Your task to perform on an android device: turn off smart reply in the gmail app Image 0: 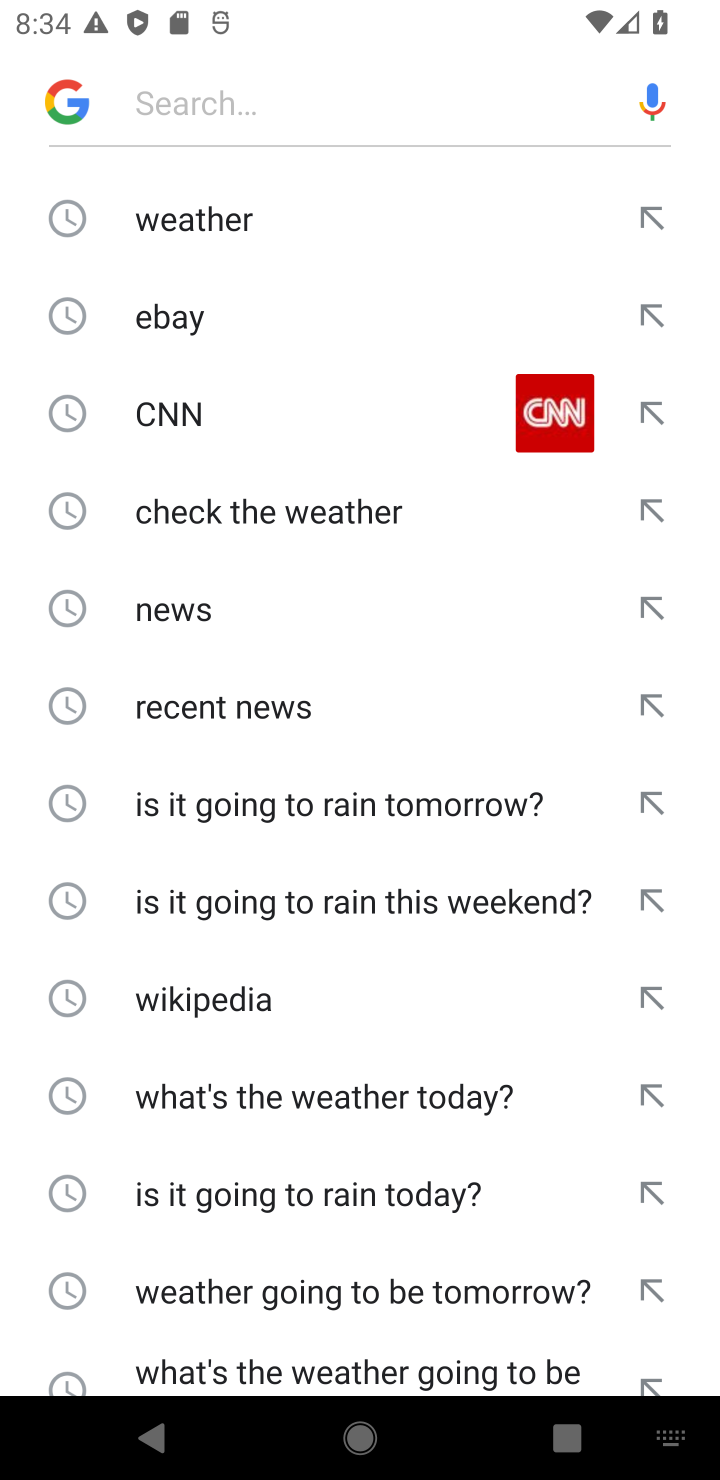
Step 0: press home button
Your task to perform on an android device: turn off smart reply in the gmail app Image 1: 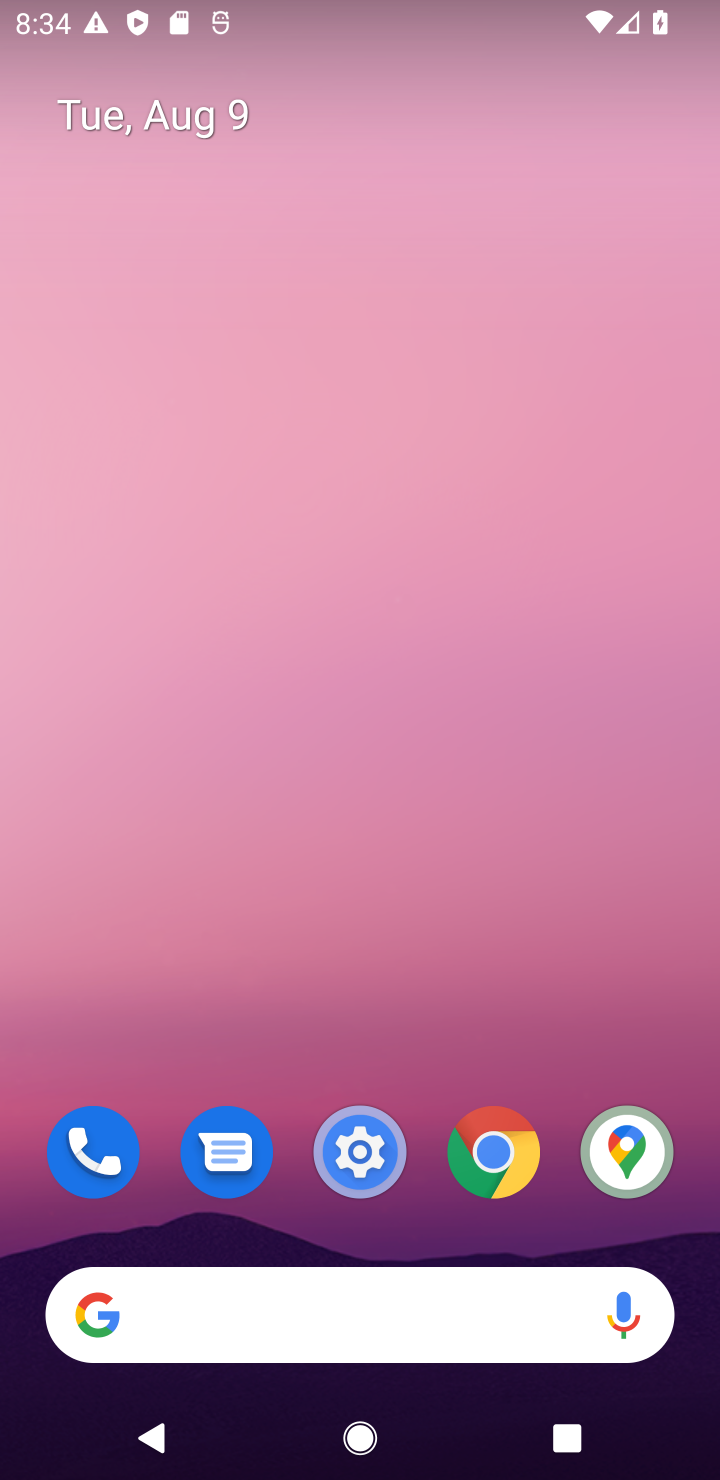
Step 1: drag from (306, 1097) to (144, 394)
Your task to perform on an android device: turn off smart reply in the gmail app Image 2: 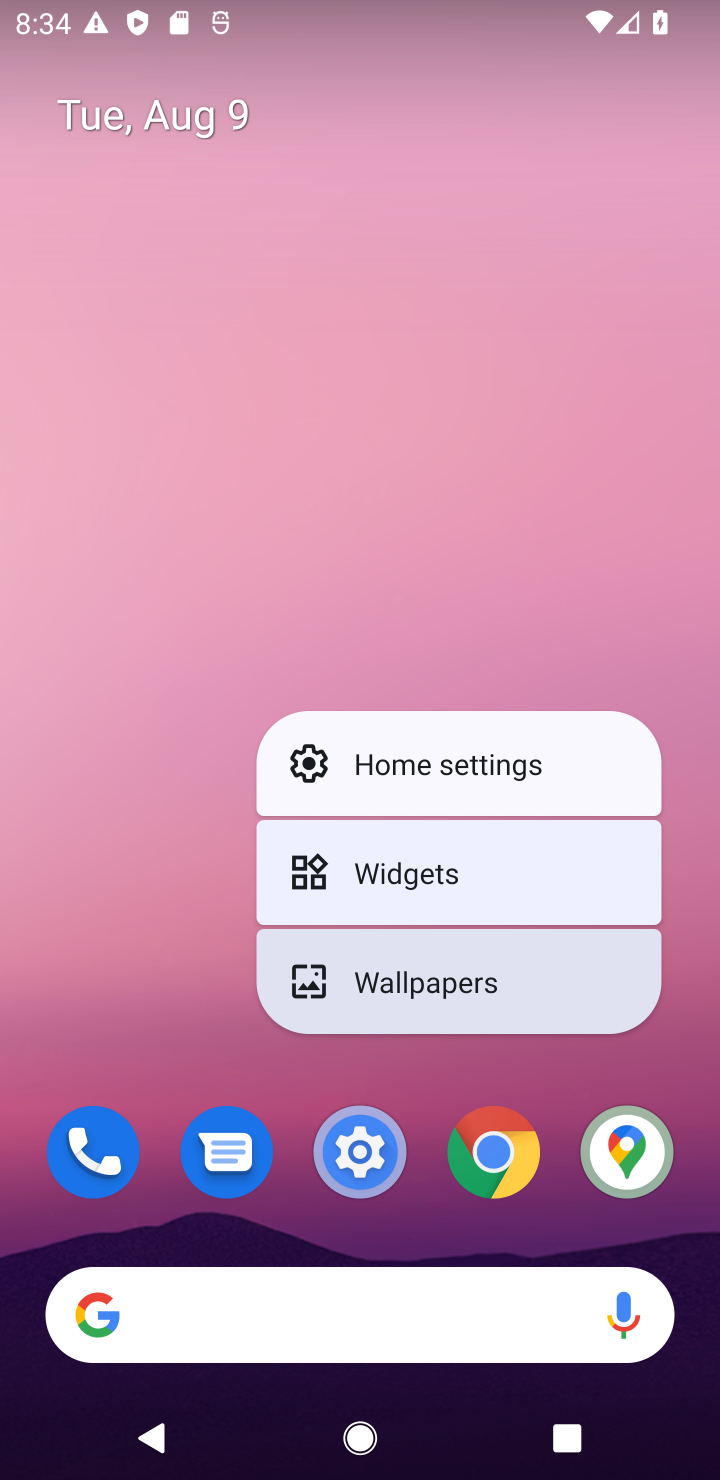
Step 2: click (121, 901)
Your task to perform on an android device: turn off smart reply in the gmail app Image 3: 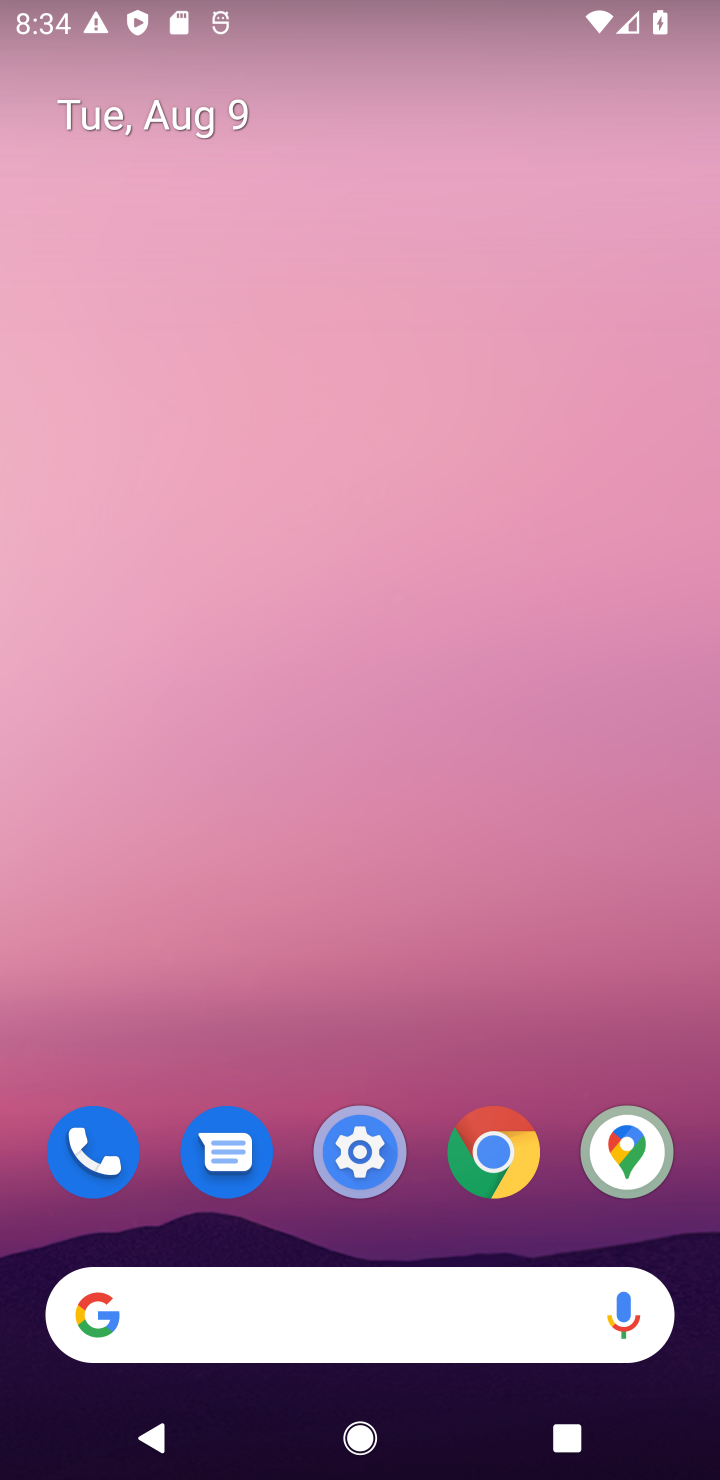
Step 3: drag from (121, 901) to (213, 247)
Your task to perform on an android device: turn off smart reply in the gmail app Image 4: 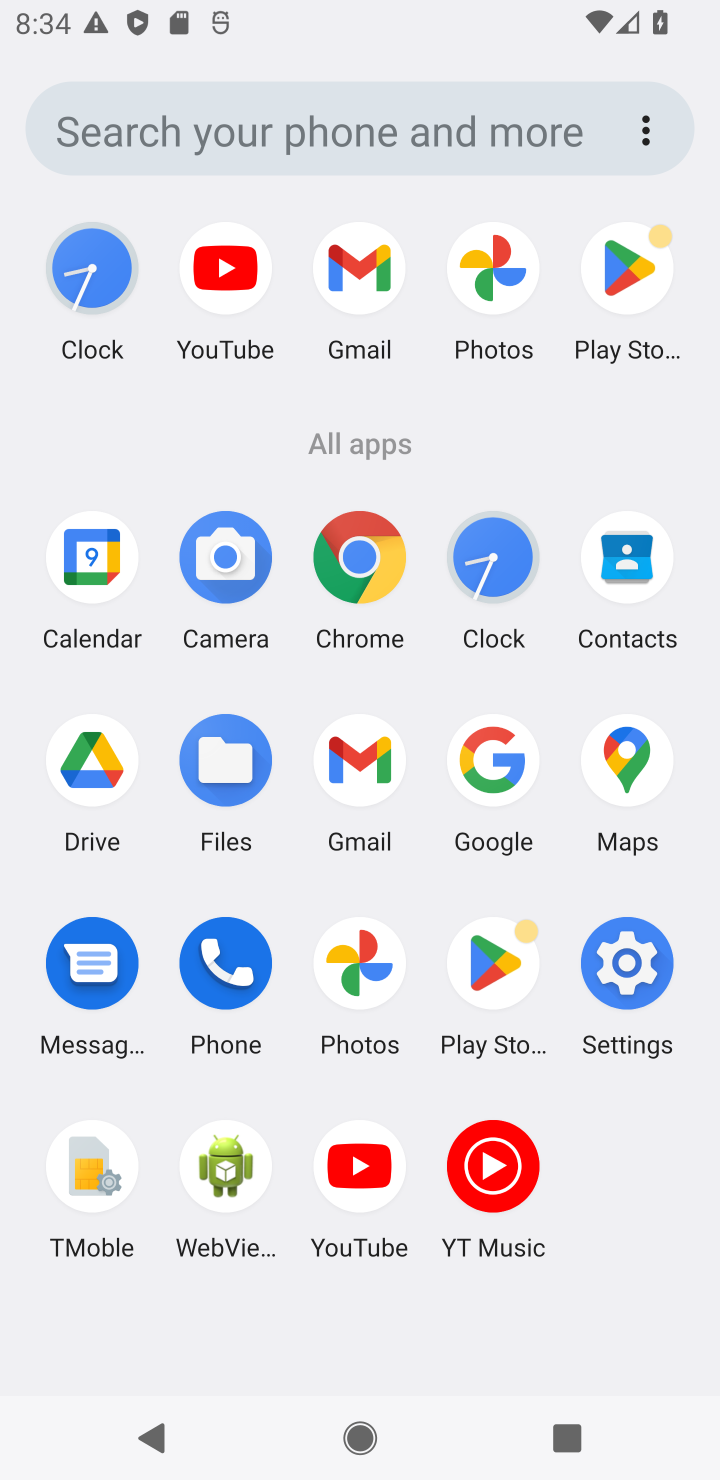
Step 4: click (344, 755)
Your task to perform on an android device: turn off smart reply in the gmail app Image 5: 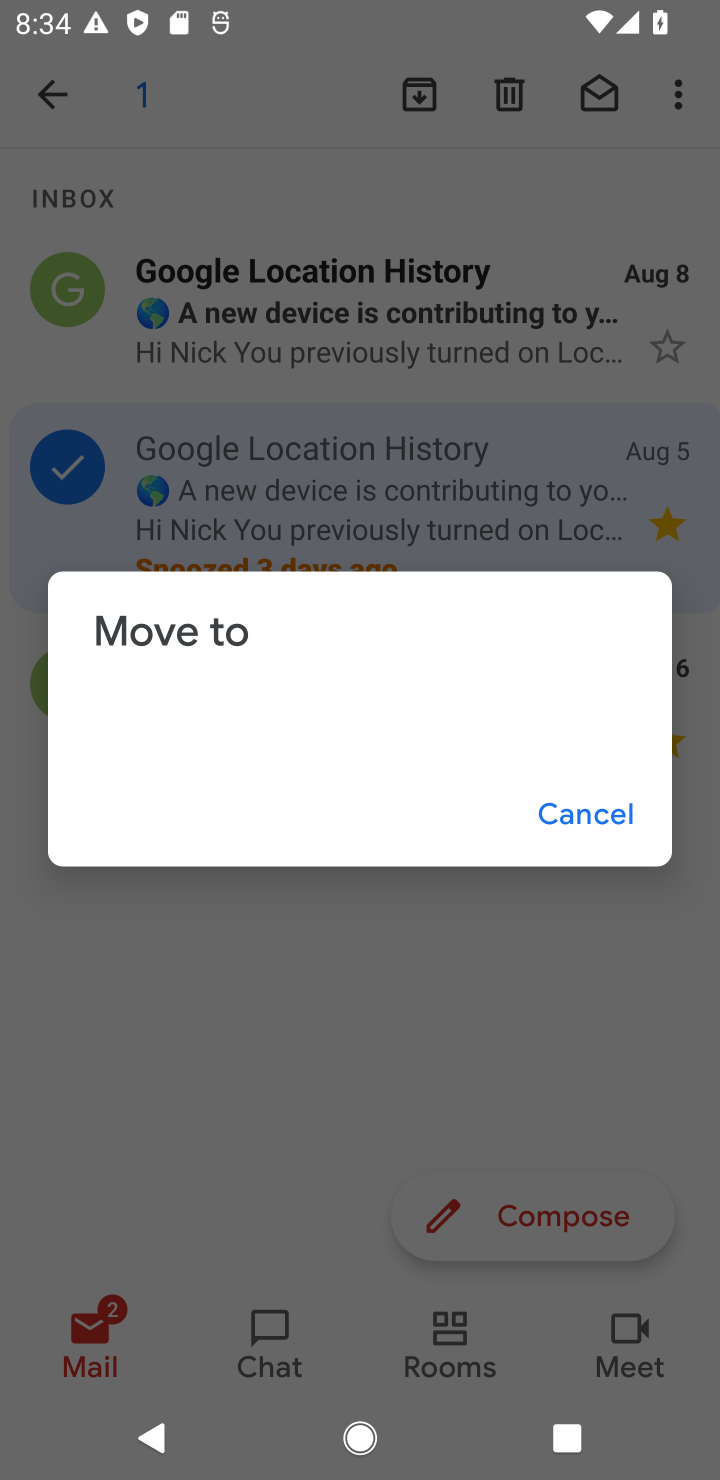
Step 5: click (563, 829)
Your task to perform on an android device: turn off smart reply in the gmail app Image 6: 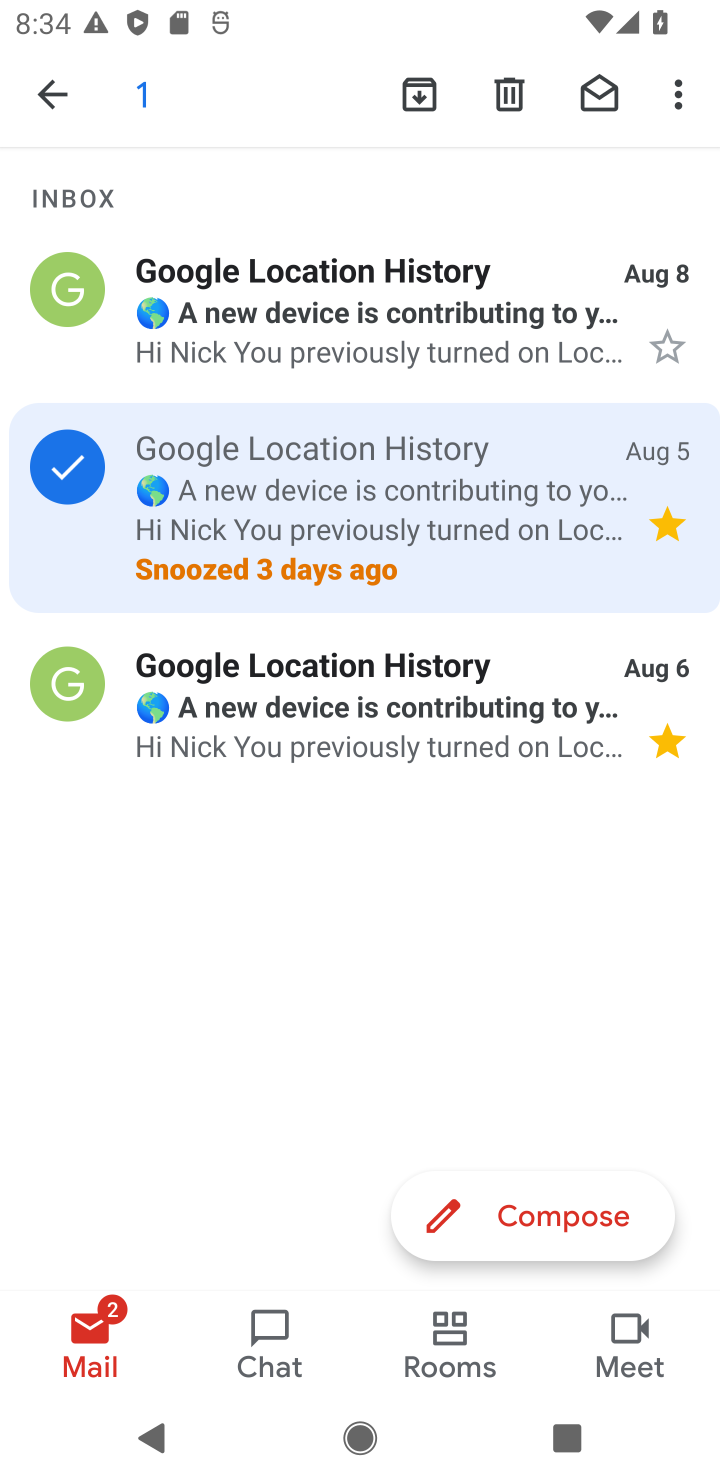
Step 6: click (36, 72)
Your task to perform on an android device: turn off smart reply in the gmail app Image 7: 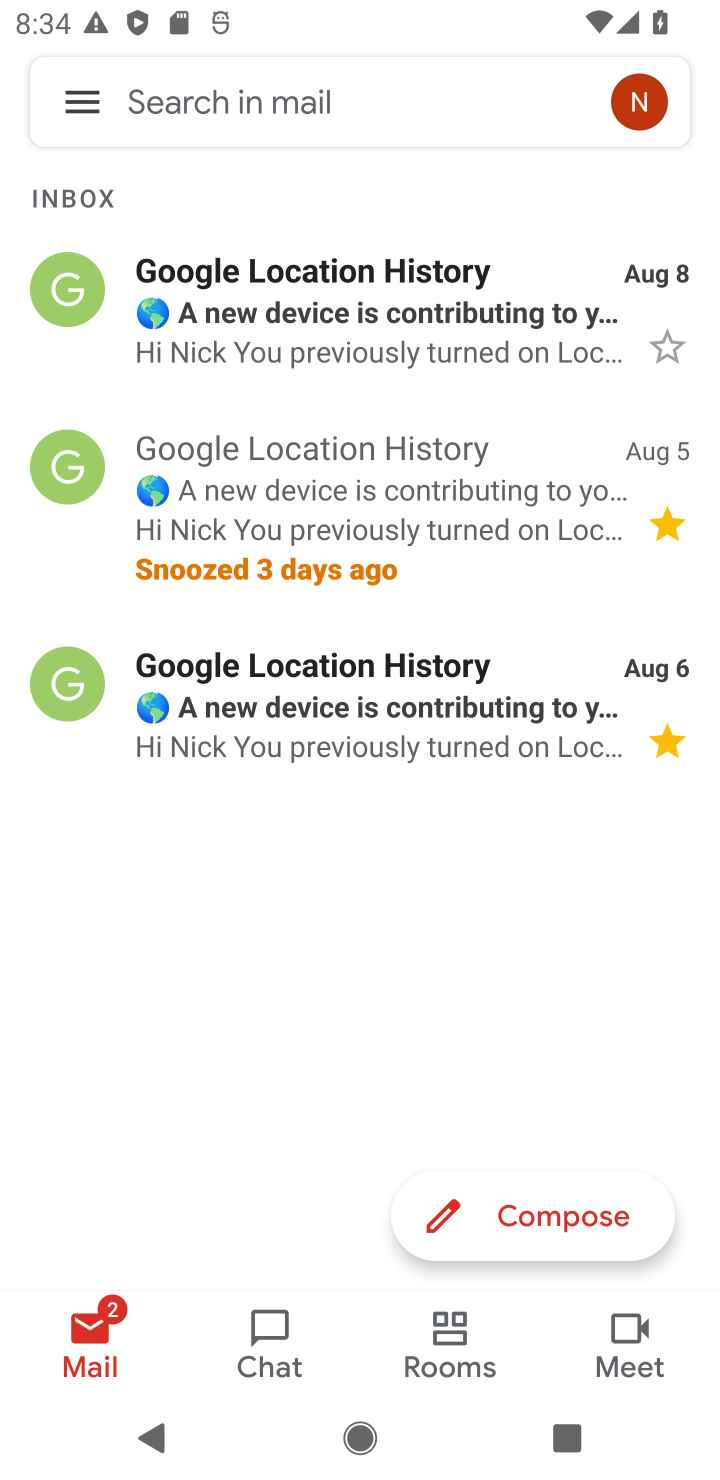
Step 7: click (66, 114)
Your task to perform on an android device: turn off smart reply in the gmail app Image 8: 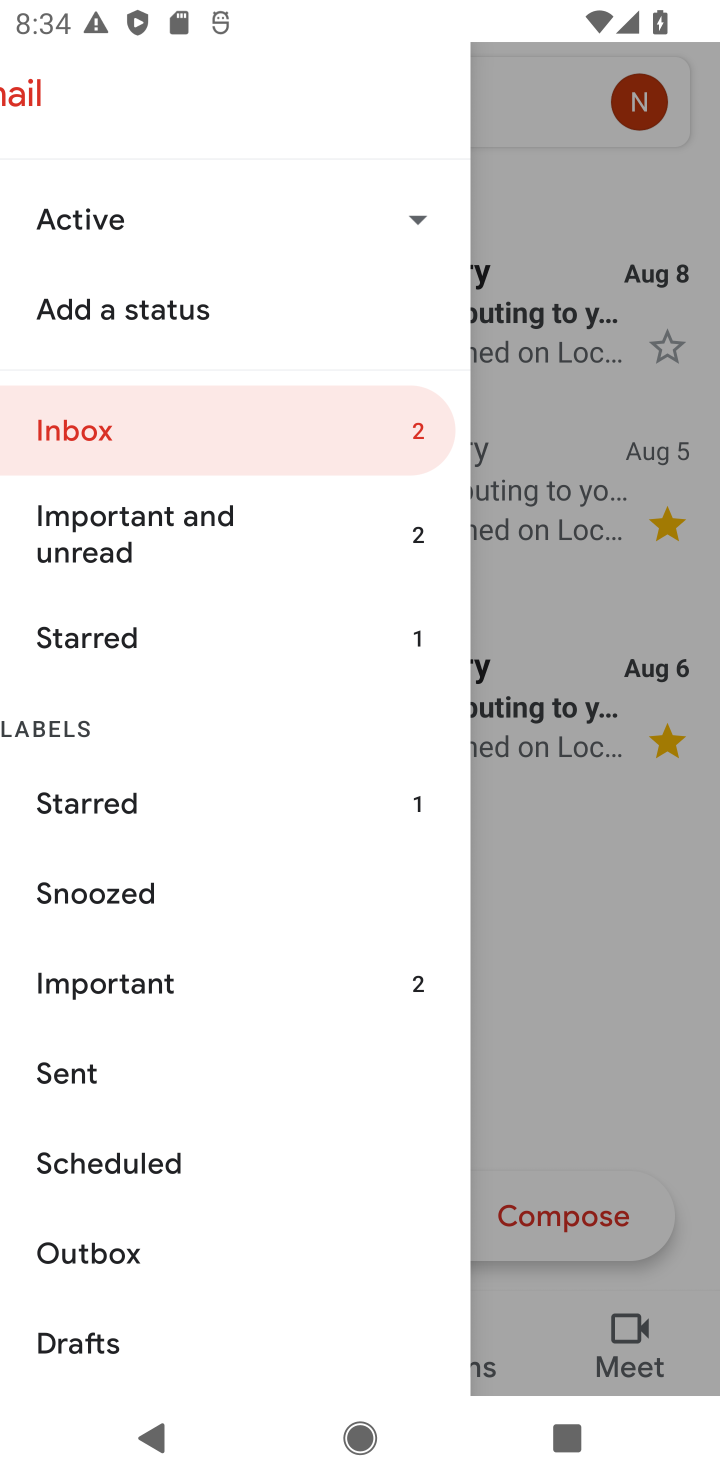
Step 8: click (66, 114)
Your task to perform on an android device: turn off smart reply in the gmail app Image 9: 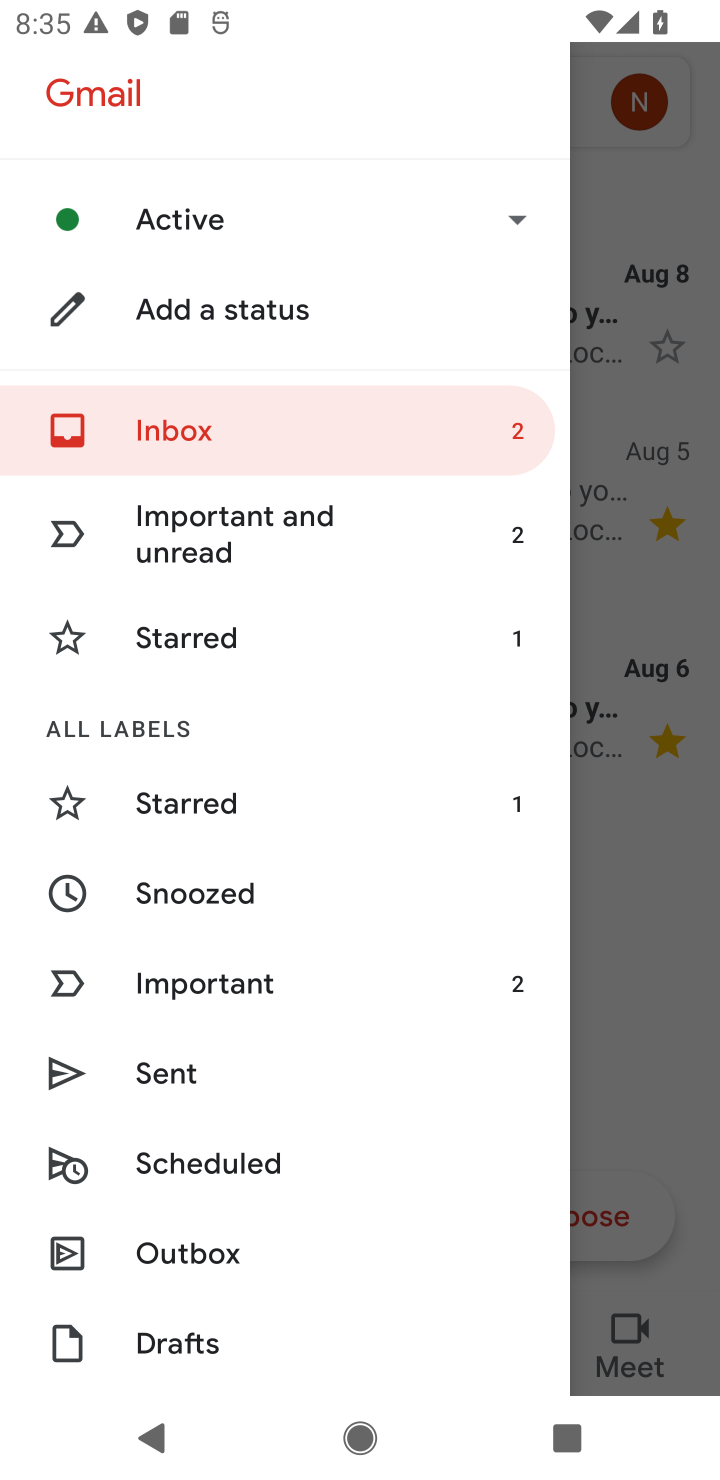
Step 9: drag from (281, 1300) to (270, 893)
Your task to perform on an android device: turn off smart reply in the gmail app Image 10: 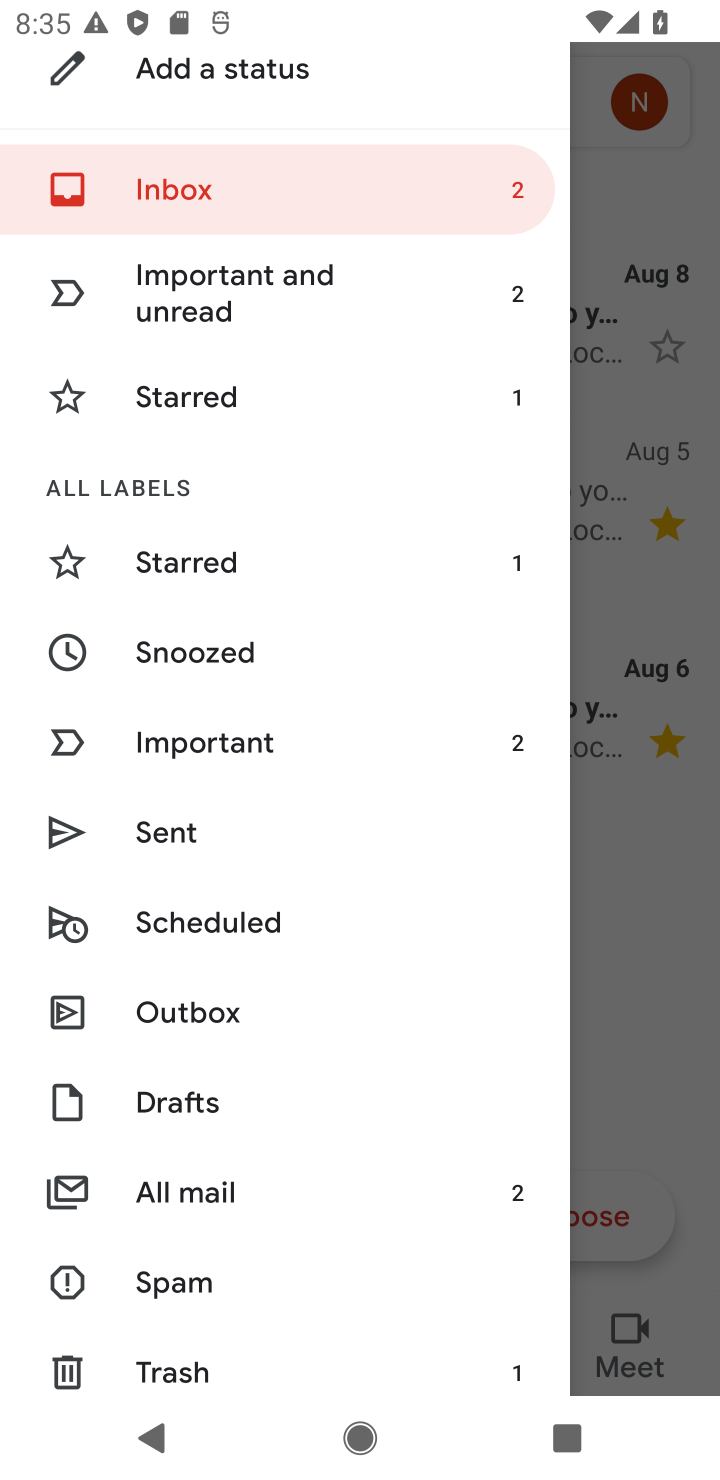
Step 10: drag from (404, 1359) to (426, 788)
Your task to perform on an android device: turn off smart reply in the gmail app Image 11: 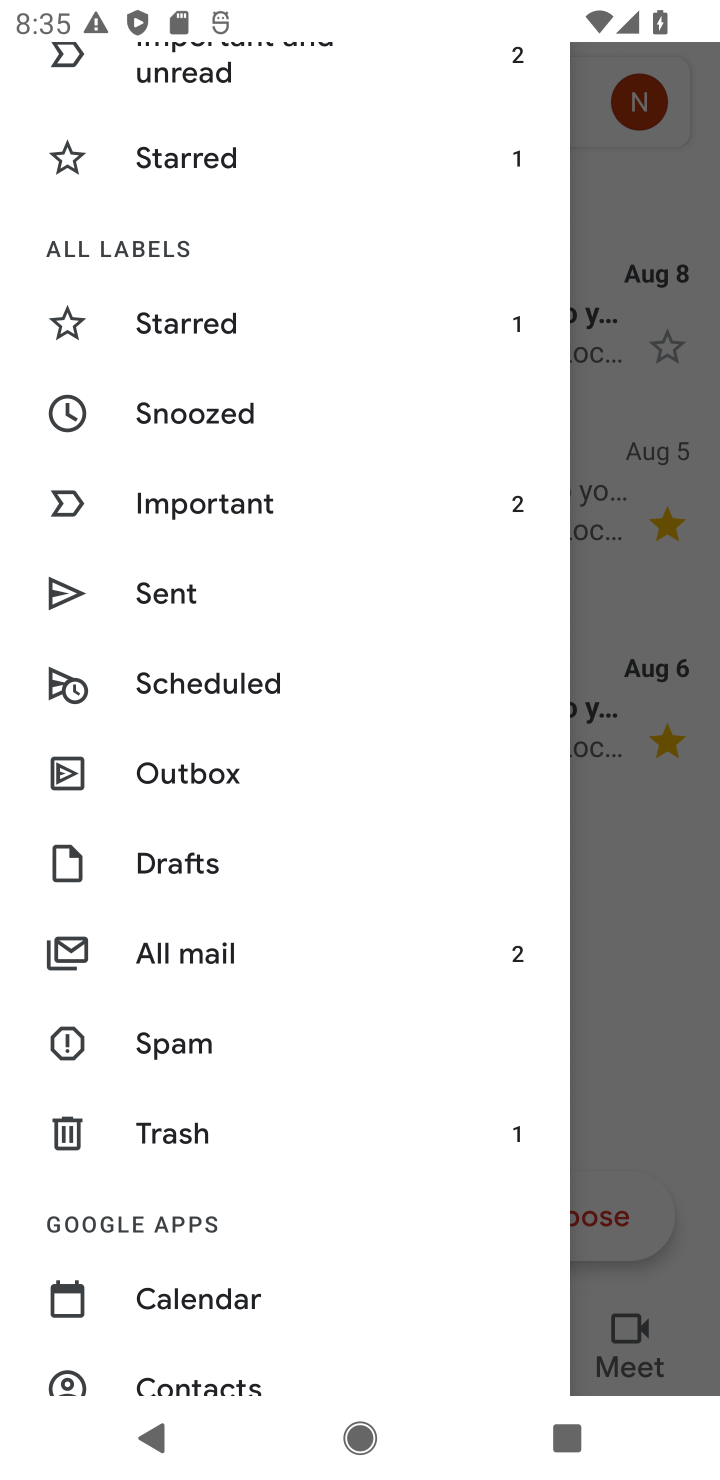
Step 11: drag from (287, 1367) to (392, 559)
Your task to perform on an android device: turn off smart reply in the gmail app Image 12: 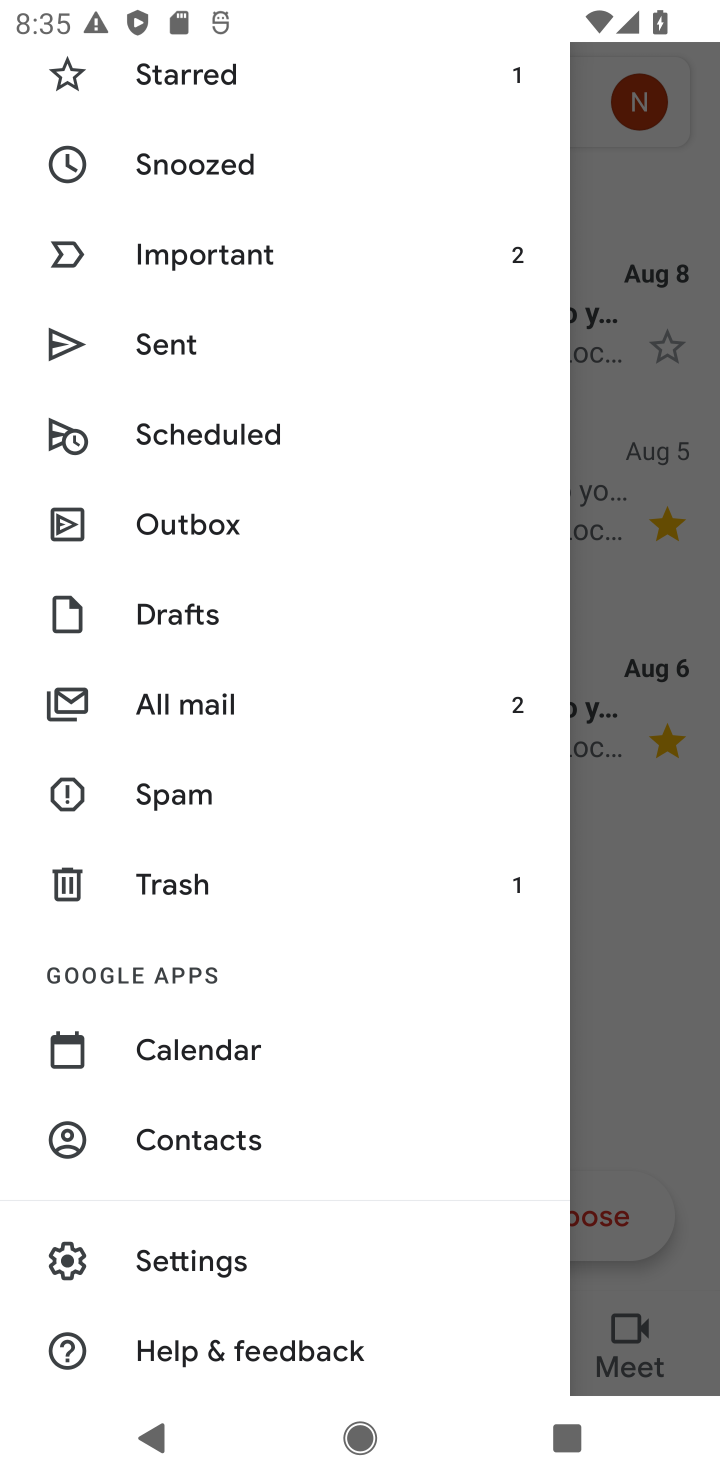
Step 12: drag from (421, 1133) to (416, 926)
Your task to perform on an android device: turn off smart reply in the gmail app Image 13: 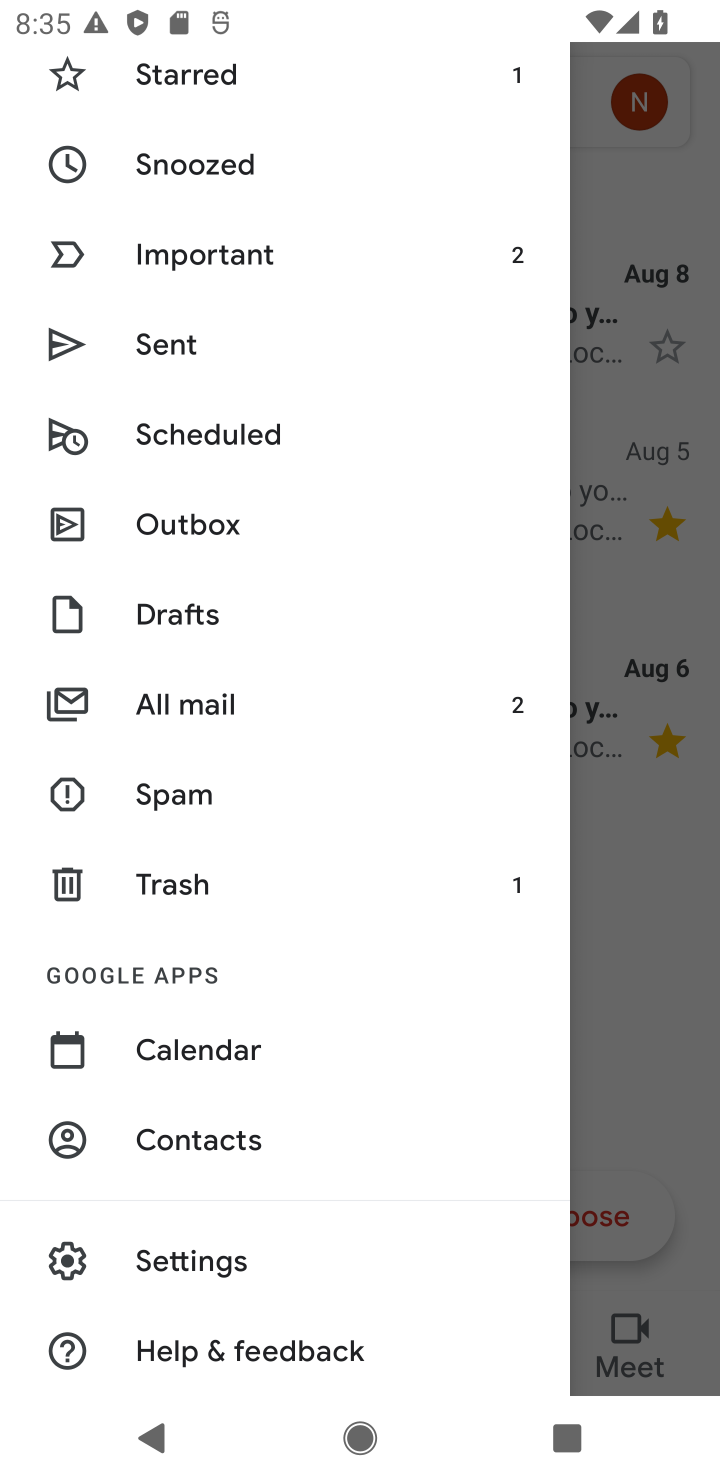
Step 13: drag from (370, 1299) to (332, 939)
Your task to perform on an android device: turn off smart reply in the gmail app Image 14: 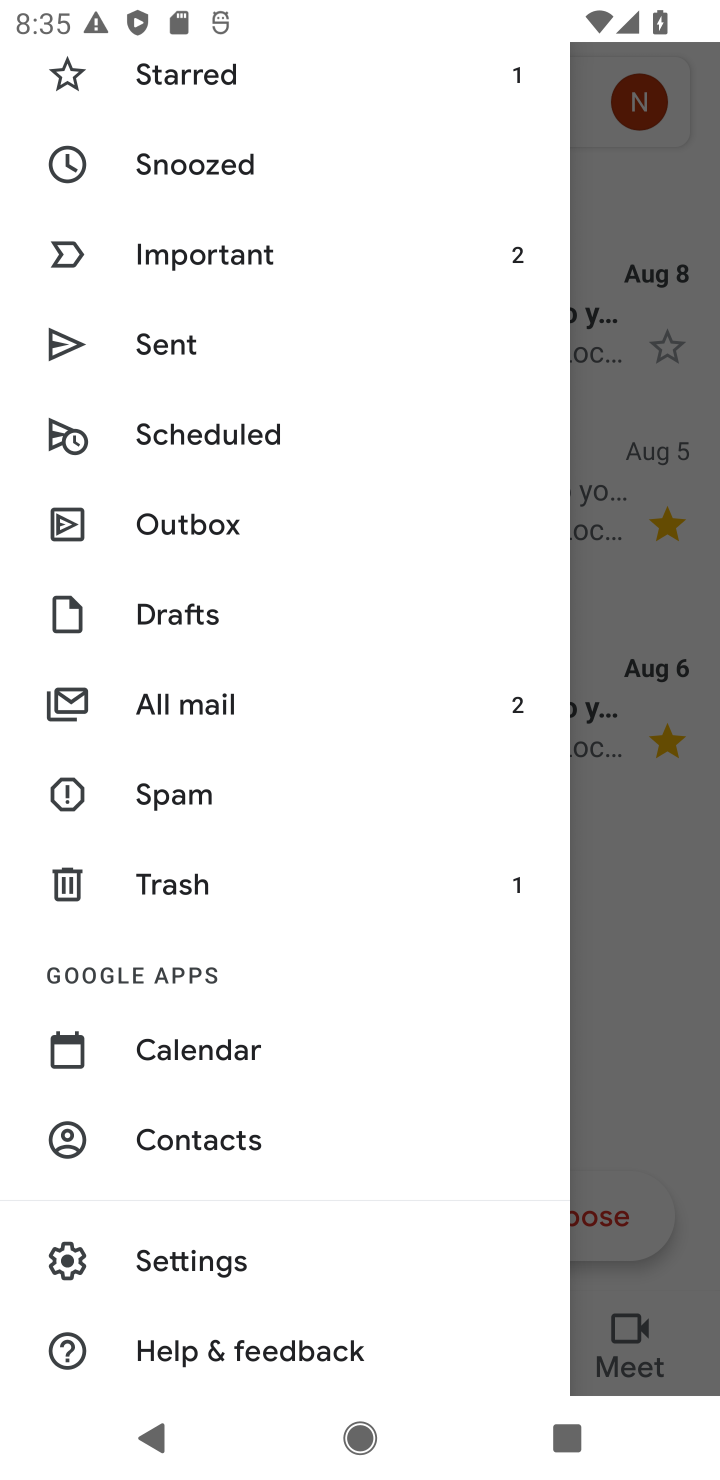
Step 14: click (158, 1293)
Your task to perform on an android device: turn off smart reply in the gmail app Image 15: 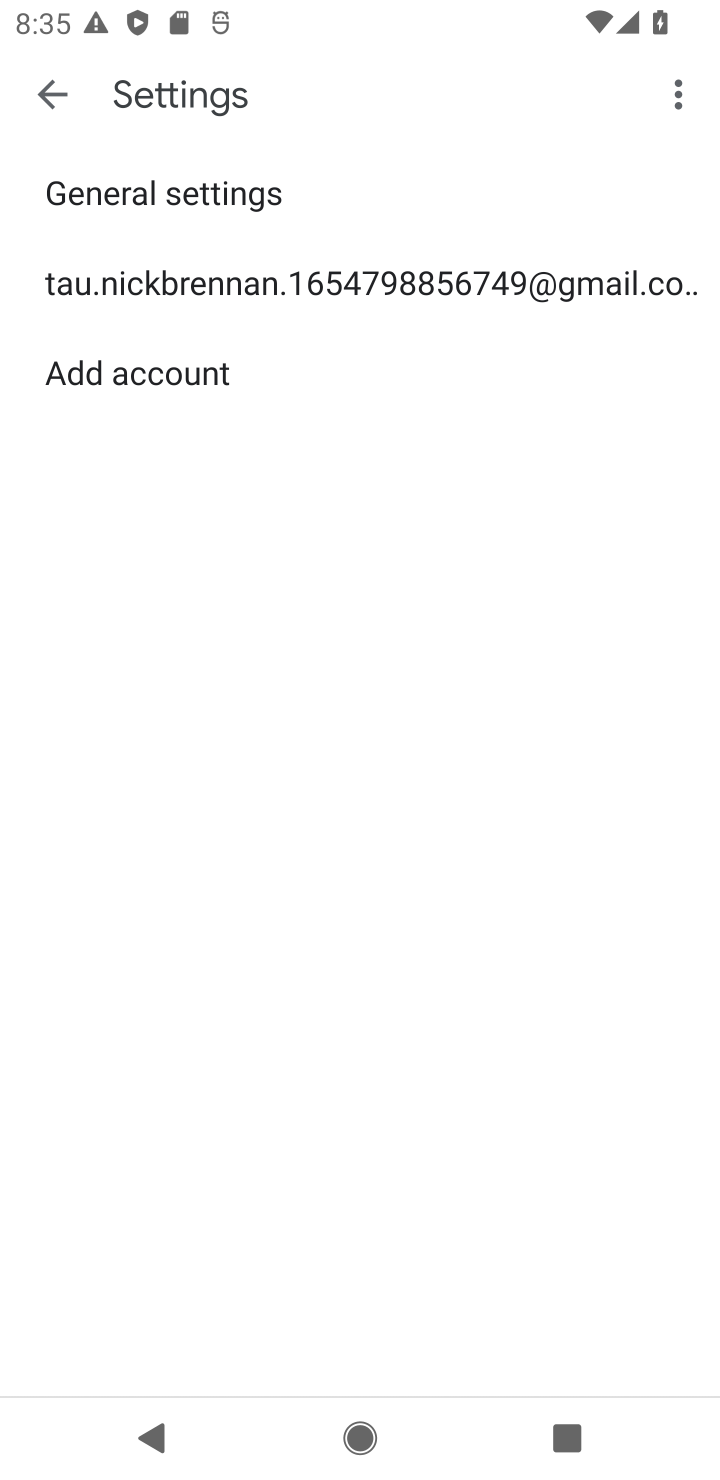
Step 15: click (211, 312)
Your task to perform on an android device: turn off smart reply in the gmail app Image 16: 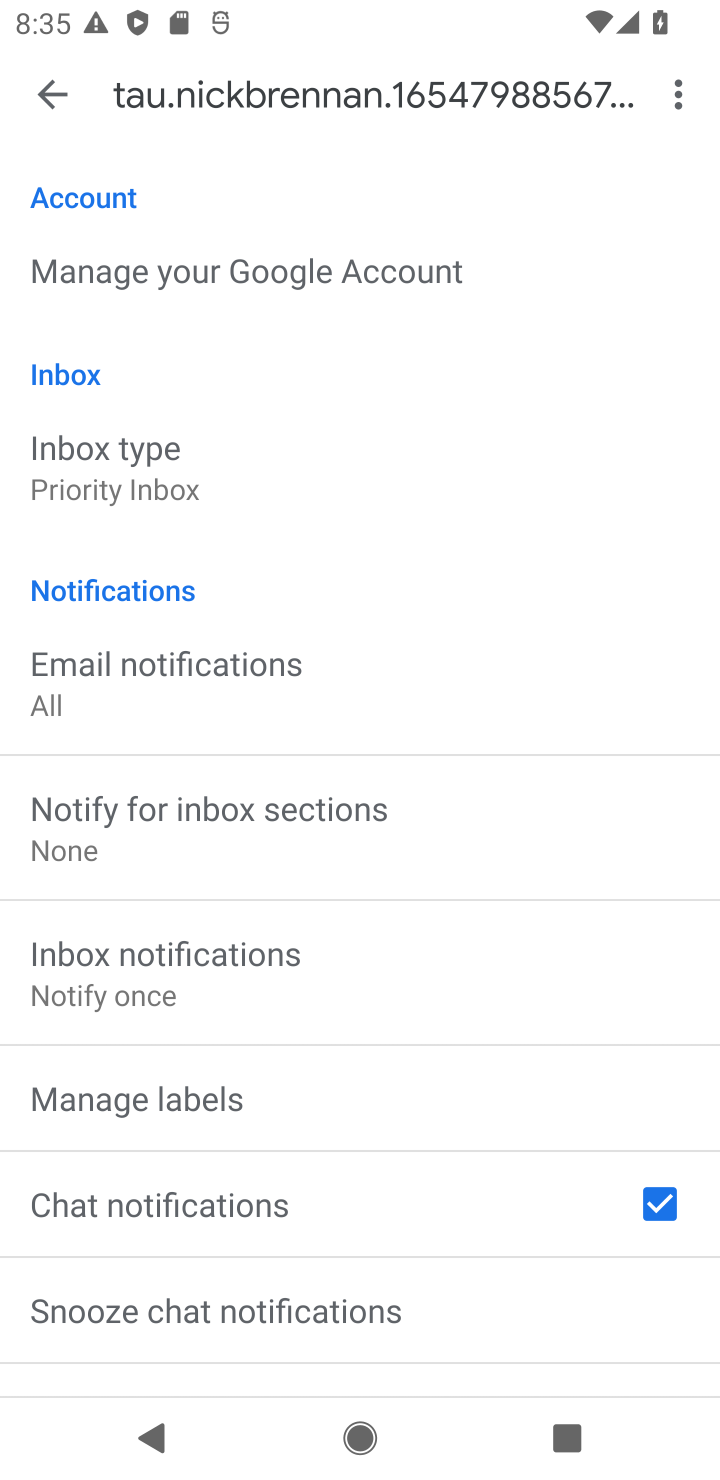
Step 16: click (232, 312)
Your task to perform on an android device: turn off smart reply in the gmail app Image 17: 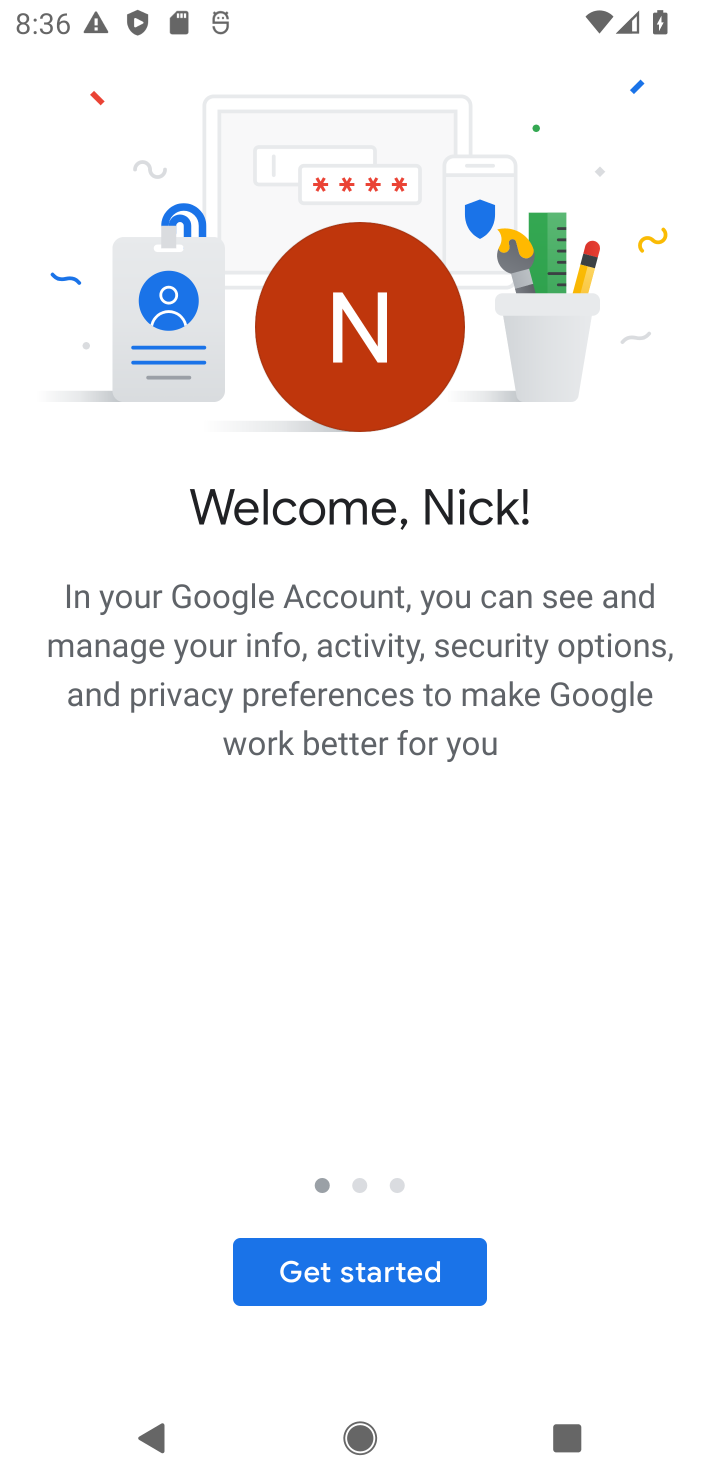
Step 17: task complete